Your task to perform on an android device: Open Google Maps and go to "Timeline" Image 0: 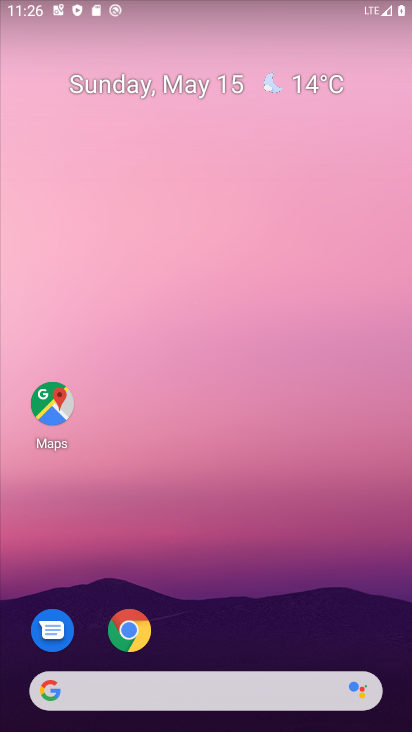
Step 0: click (50, 409)
Your task to perform on an android device: Open Google Maps and go to "Timeline" Image 1: 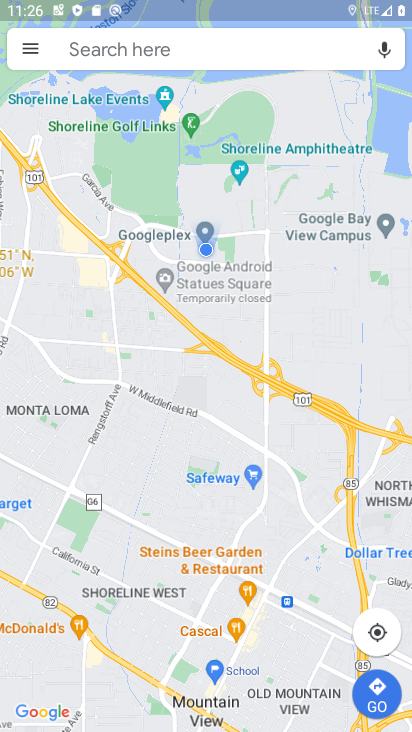
Step 1: click (30, 52)
Your task to perform on an android device: Open Google Maps and go to "Timeline" Image 2: 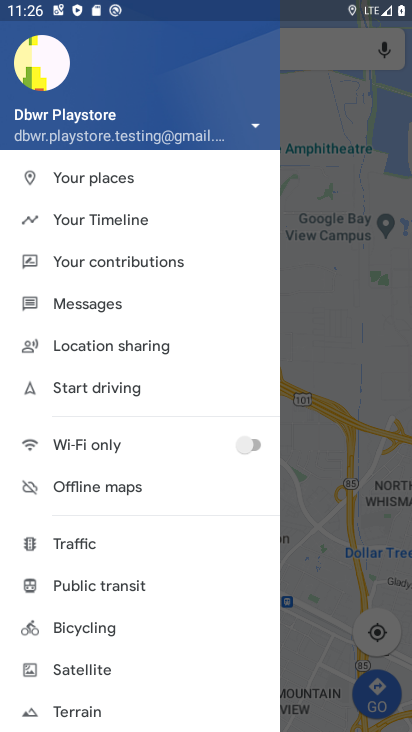
Step 2: click (140, 220)
Your task to perform on an android device: Open Google Maps and go to "Timeline" Image 3: 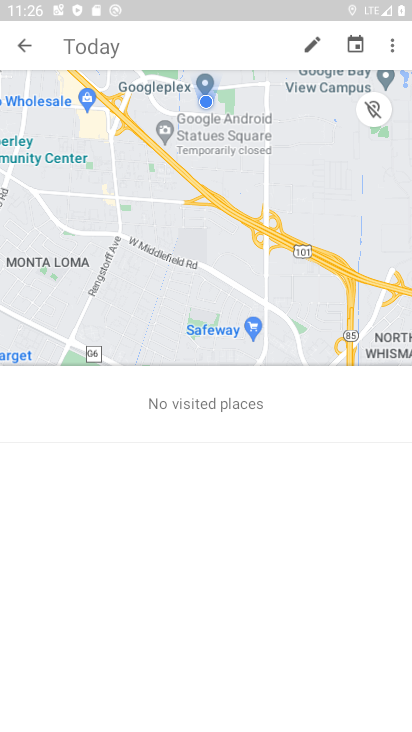
Step 3: task complete